Your task to perform on an android device: Open internet settings Image 0: 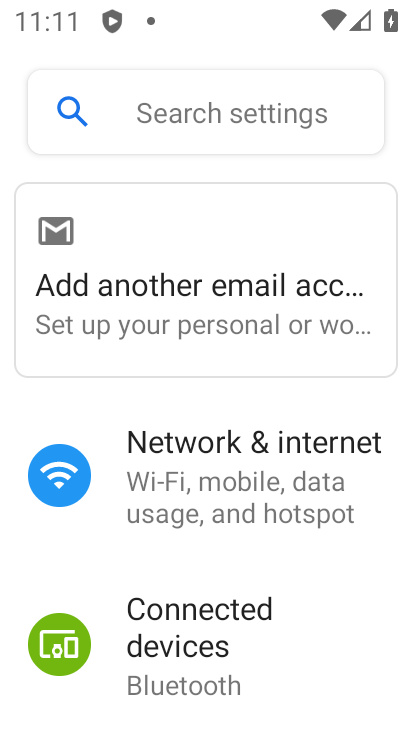
Step 0: click (229, 506)
Your task to perform on an android device: Open internet settings Image 1: 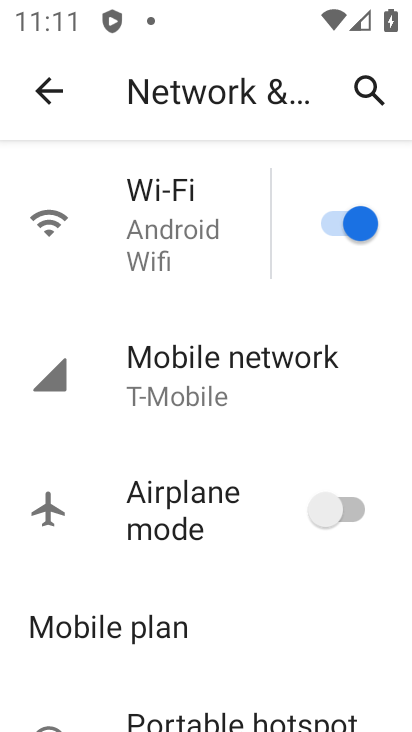
Step 1: drag from (184, 705) to (223, 312)
Your task to perform on an android device: Open internet settings Image 2: 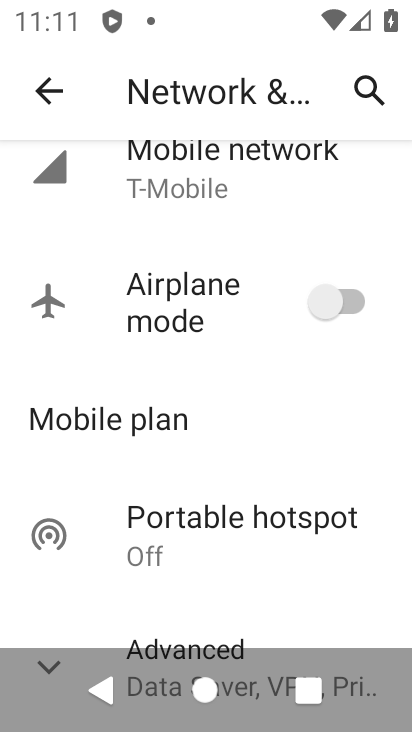
Step 2: click (152, 644)
Your task to perform on an android device: Open internet settings Image 3: 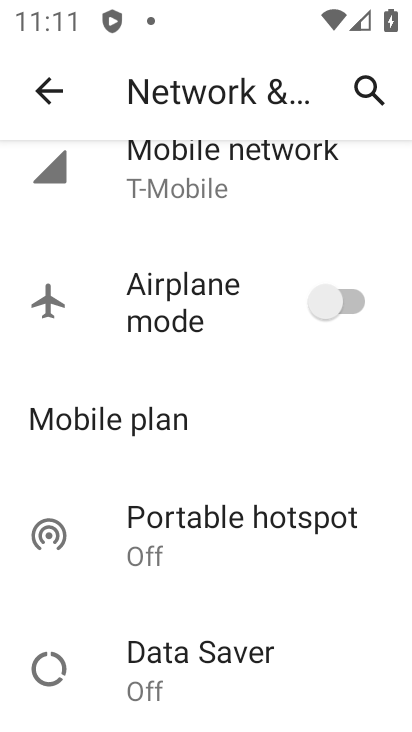
Step 3: task complete